Your task to perform on an android device: Check the news Image 0: 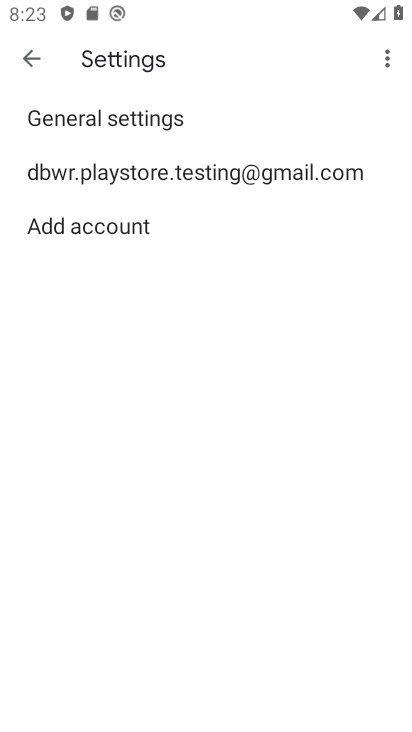
Step 0: press back button
Your task to perform on an android device: Check the news Image 1: 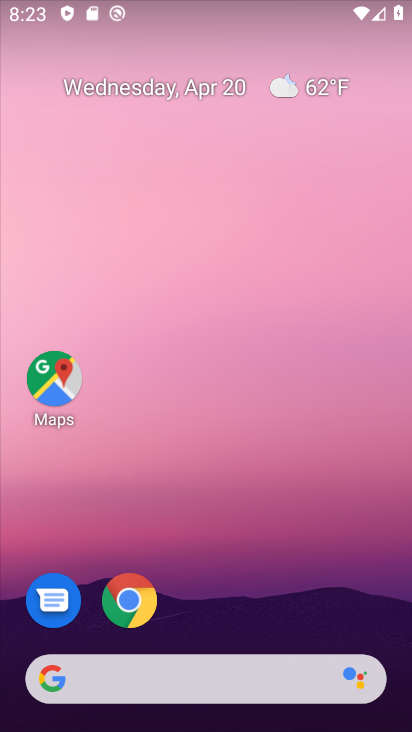
Step 1: task complete